Your task to perform on an android device: turn off priority inbox in the gmail app Image 0: 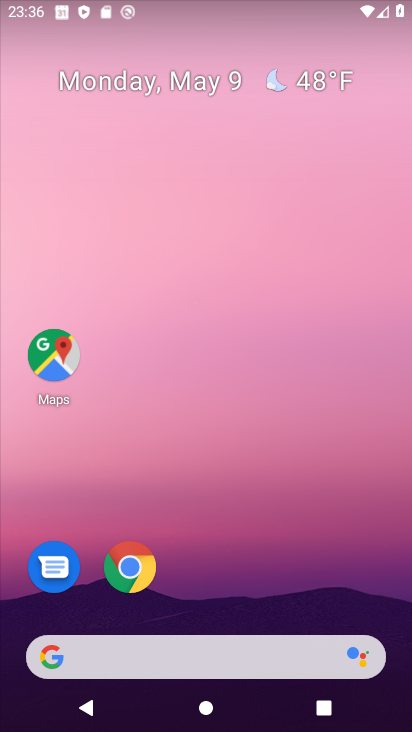
Step 0: drag from (212, 565) to (226, 35)
Your task to perform on an android device: turn off priority inbox in the gmail app Image 1: 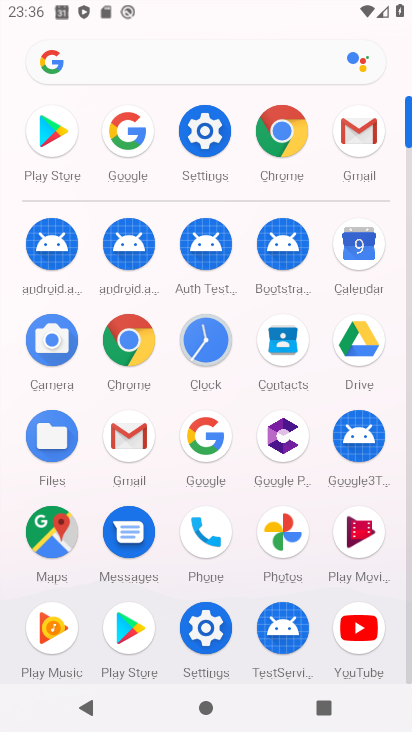
Step 1: click (357, 131)
Your task to perform on an android device: turn off priority inbox in the gmail app Image 2: 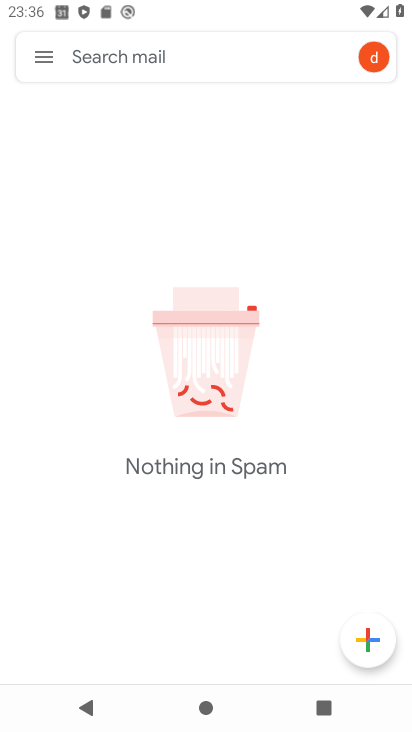
Step 2: click (44, 62)
Your task to perform on an android device: turn off priority inbox in the gmail app Image 3: 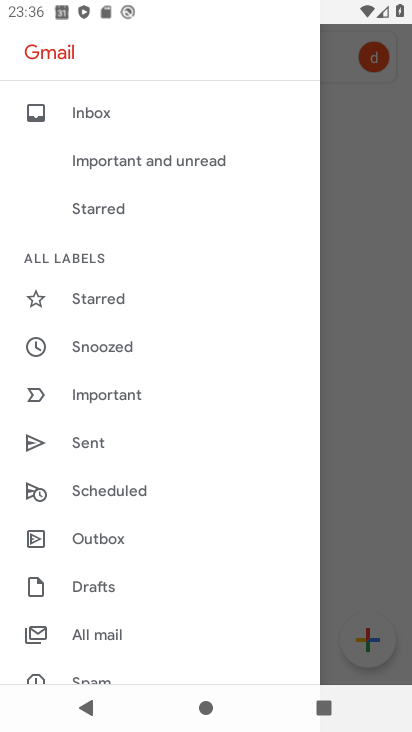
Step 3: drag from (118, 467) to (158, 367)
Your task to perform on an android device: turn off priority inbox in the gmail app Image 4: 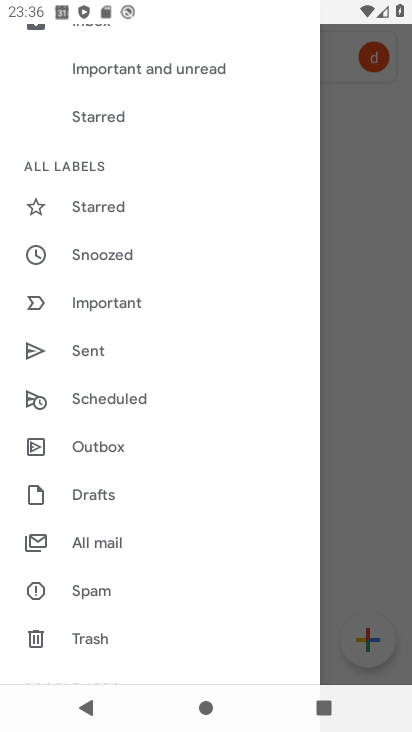
Step 4: drag from (132, 600) to (145, 437)
Your task to perform on an android device: turn off priority inbox in the gmail app Image 5: 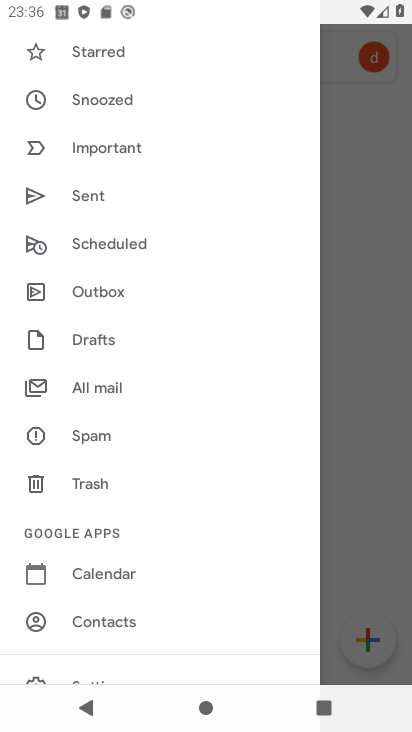
Step 5: drag from (131, 503) to (148, 392)
Your task to perform on an android device: turn off priority inbox in the gmail app Image 6: 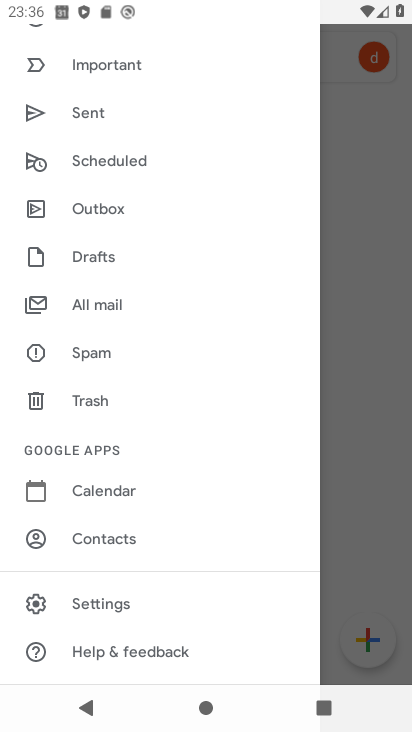
Step 6: click (95, 600)
Your task to perform on an android device: turn off priority inbox in the gmail app Image 7: 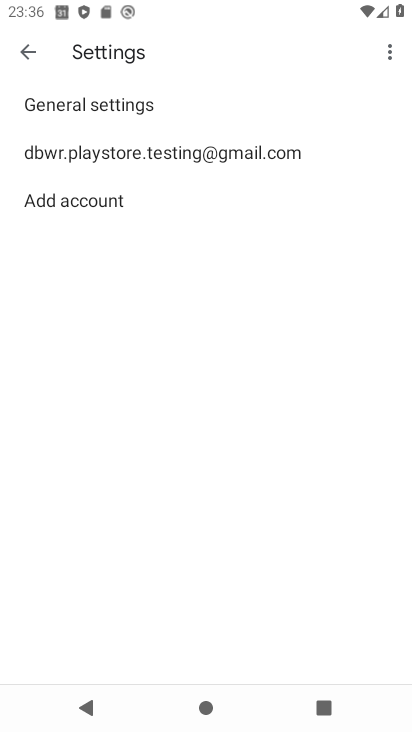
Step 7: click (150, 157)
Your task to perform on an android device: turn off priority inbox in the gmail app Image 8: 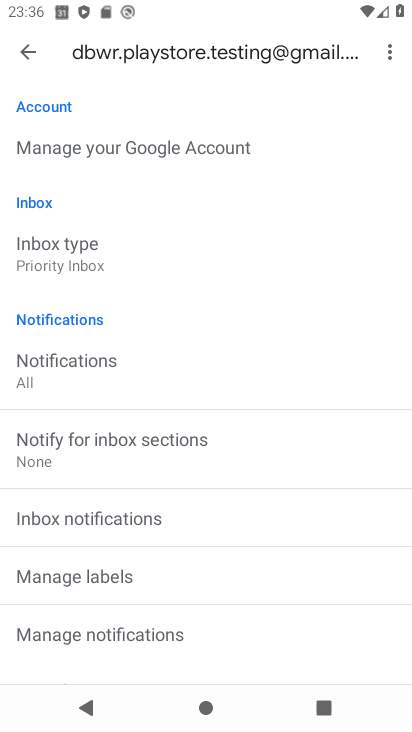
Step 8: click (71, 257)
Your task to perform on an android device: turn off priority inbox in the gmail app Image 9: 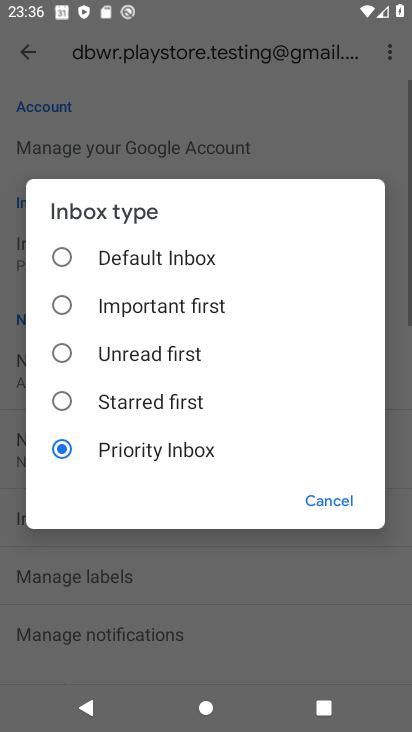
Step 9: click (71, 257)
Your task to perform on an android device: turn off priority inbox in the gmail app Image 10: 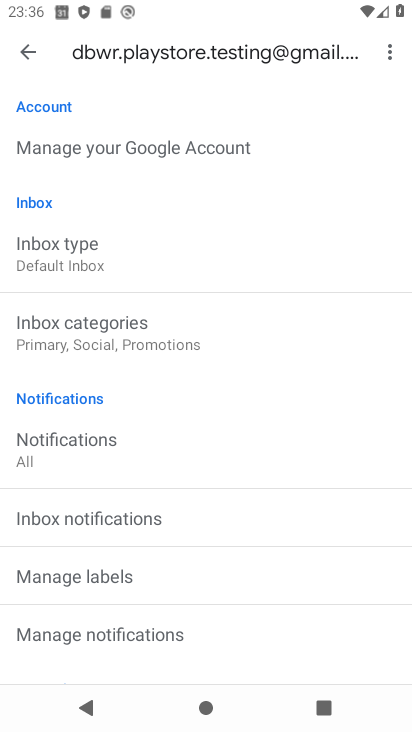
Step 10: task complete